Your task to perform on an android device: check data usage Image 0: 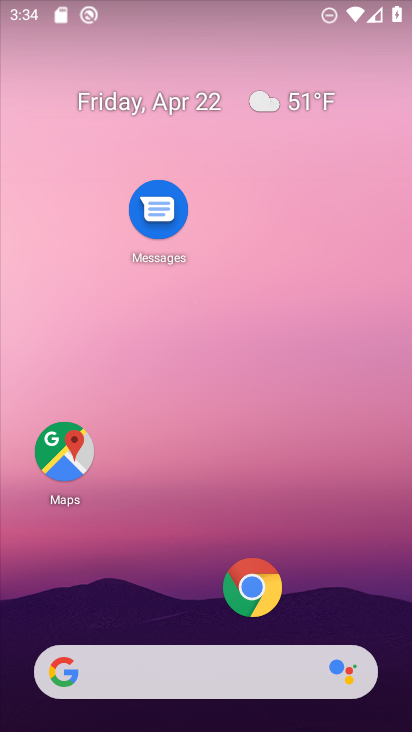
Step 0: drag from (187, 467) to (211, 175)
Your task to perform on an android device: check data usage Image 1: 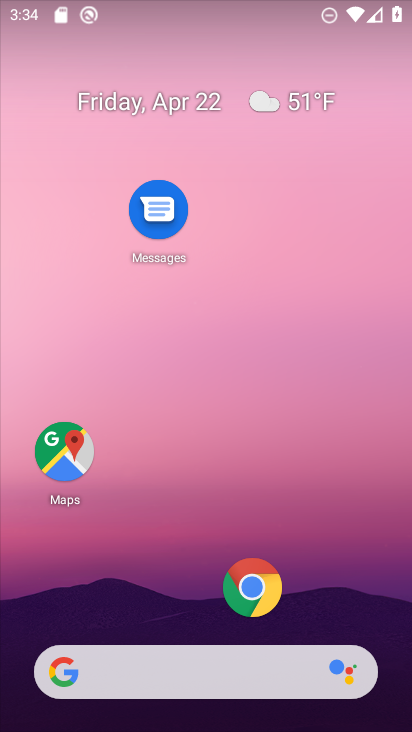
Step 1: drag from (197, 329) to (197, 181)
Your task to perform on an android device: check data usage Image 2: 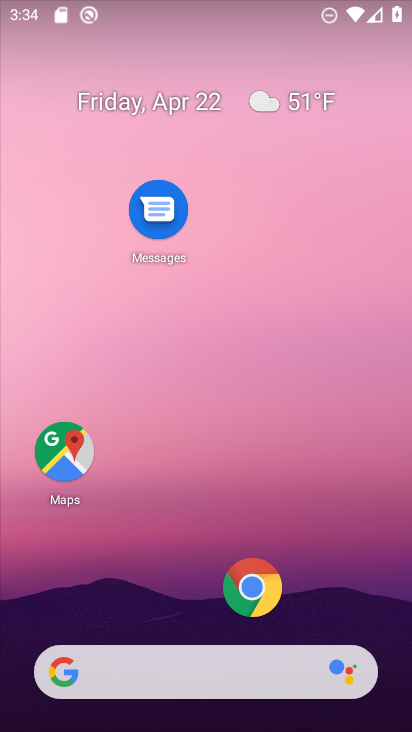
Step 2: drag from (206, 536) to (258, 165)
Your task to perform on an android device: check data usage Image 3: 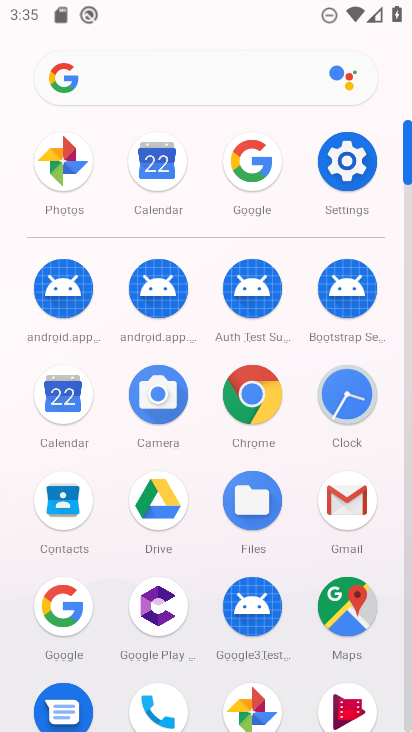
Step 3: click (325, 169)
Your task to perform on an android device: check data usage Image 4: 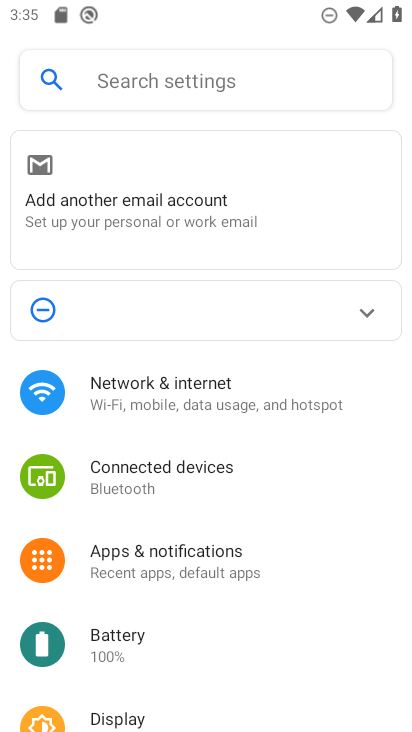
Step 4: drag from (218, 581) to (235, 402)
Your task to perform on an android device: check data usage Image 5: 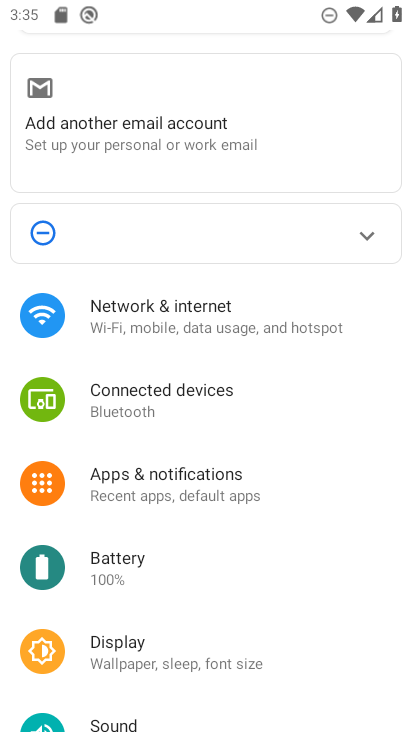
Step 5: click (193, 328)
Your task to perform on an android device: check data usage Image 6: 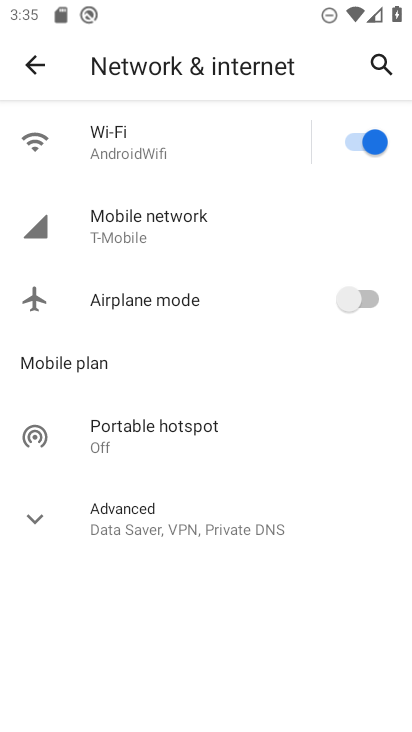
Step 6: click (188, 243)
Your task to perform on an android device: check data usage Image 7: 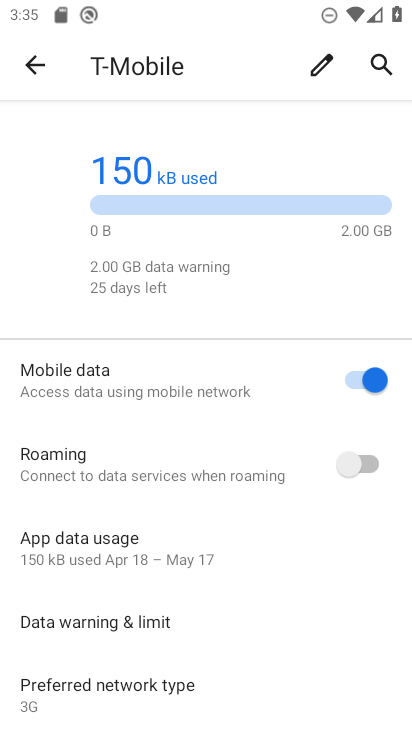
Step 7: click (121, 541)
Your task to perform on an android device: check data usage Image 8: 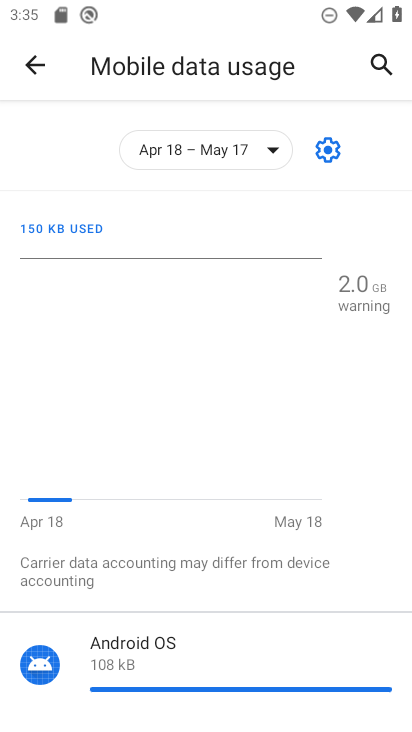
Step 8: task complete